Your task to perform on an android device: See recent photos Image 0: 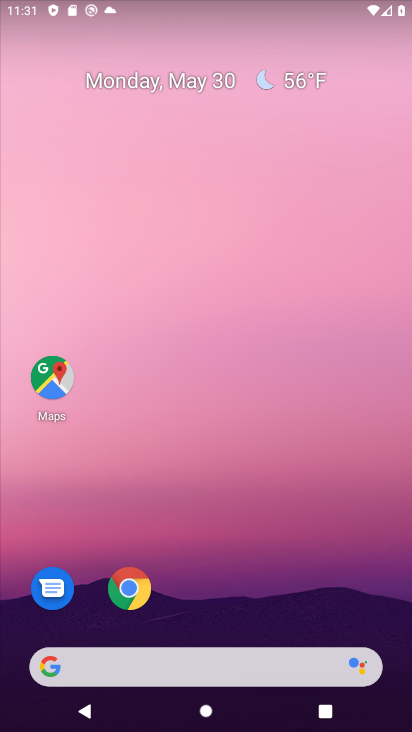
Step 0: drag from (205, 608) to (198, 69)
Your task to perform on an android device: See recent photos Image 1: 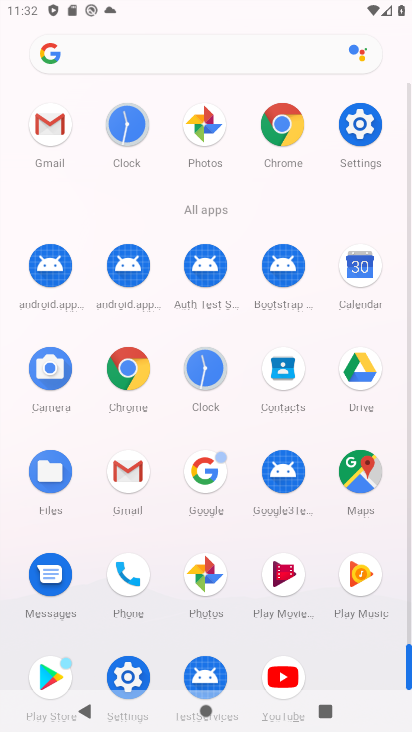
Step 1: click (196, 584)
Your task to perform on an android device: See recent photos Image 2: 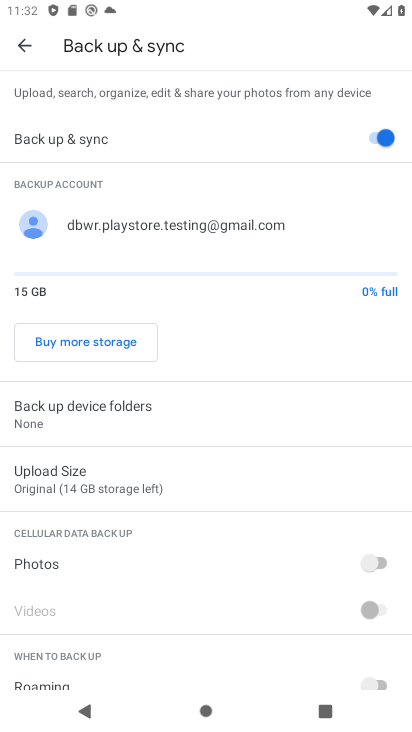
Step 2: click (17, 46)
Your task to perform on an android device: See recent photos Image 3: 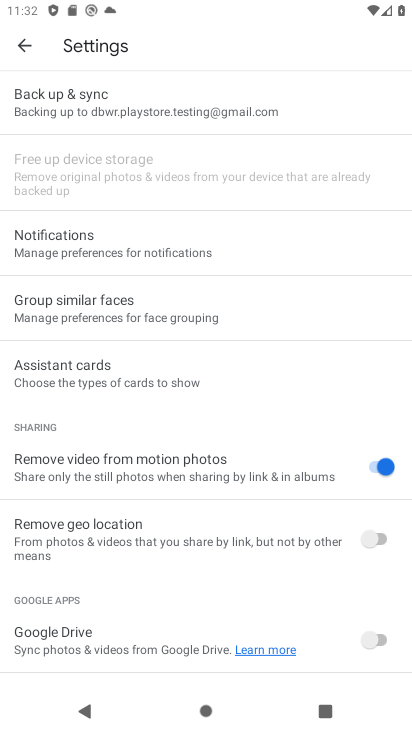
Step 3: click (16, 45)
Your task to perform on an android device: See recent photos Image 4: 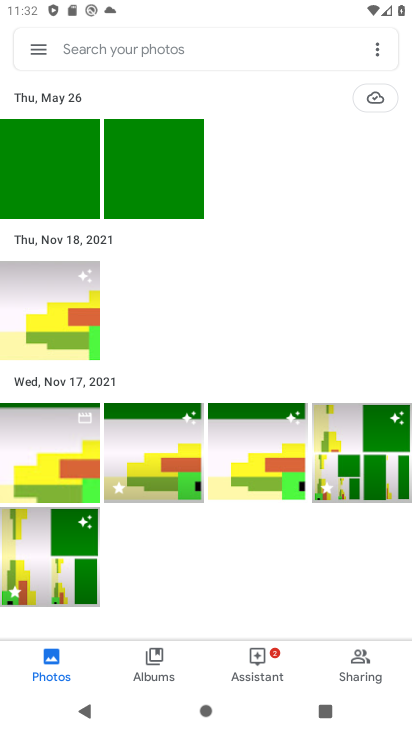
Step 4: task complete